Your task to perform on an android device: Go to accessibility settings Image 0: 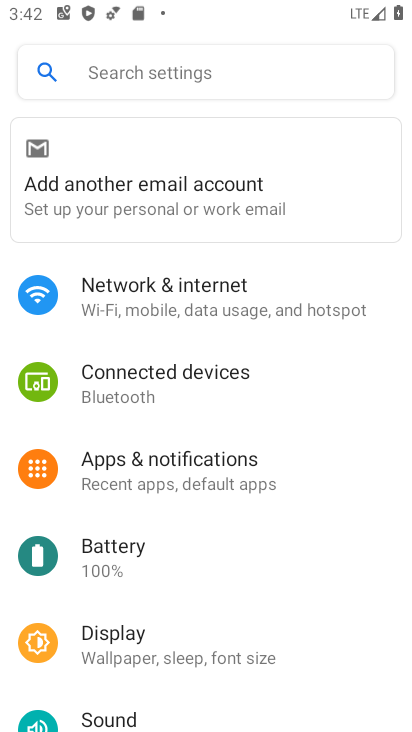
Step 0: drag from (188, 551) to (211, 148)
Your task to perform on an android device: Go to accessibility settings Image 1: 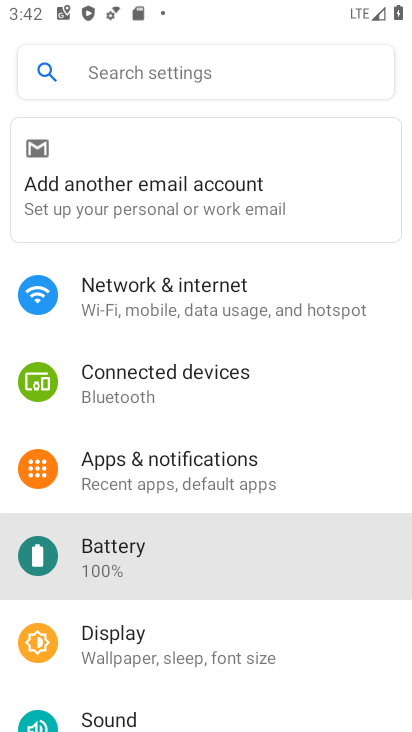
Step 1: drag from (176, 548) to (164, 207)
Your task to perform on an android device: Go to accessibility settings Image 2: 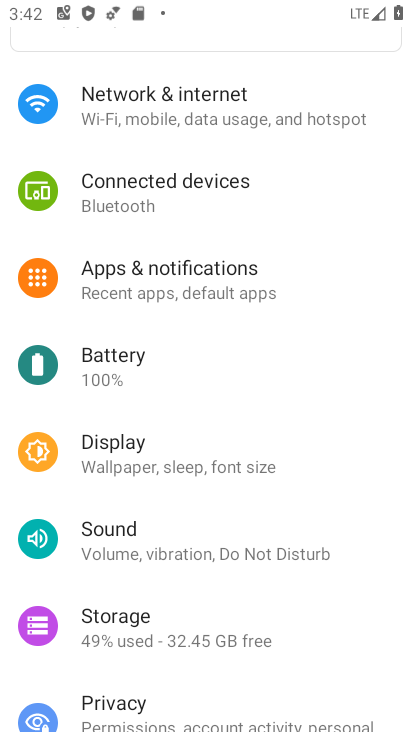
Step 2: drag from (161, 523) to (103, 177)
Your task to perform on an android device: Go to accessibility settings Image 3: 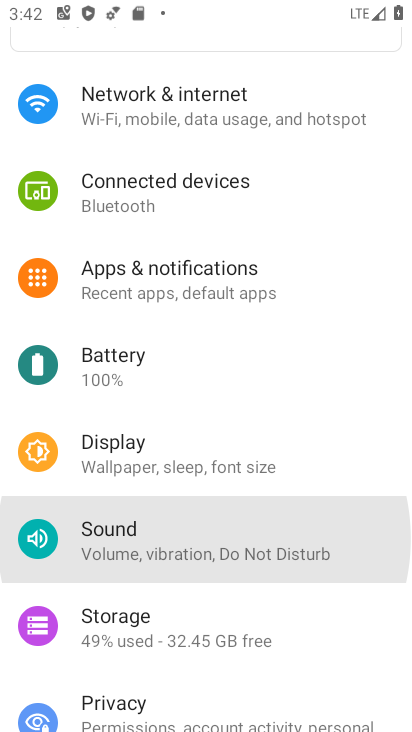
Step 3: click (144, 111)
Your task to perform on an android device: Go to accessibility settings Image 4: 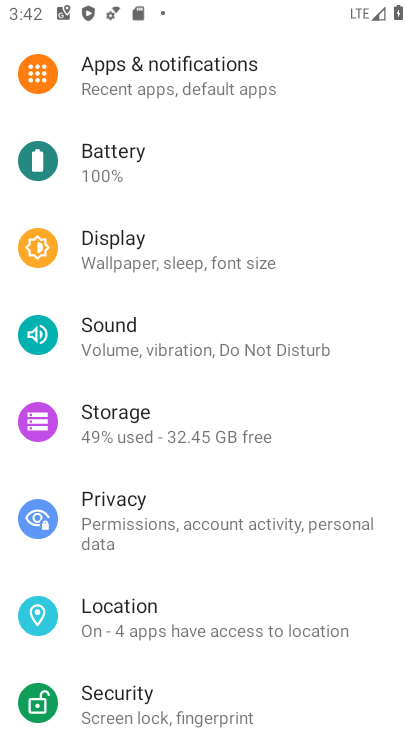
Step 4: drag from (176, 491) to (157, 165)
Your task to perform on an android device: Go to accessibility settings Image 5: 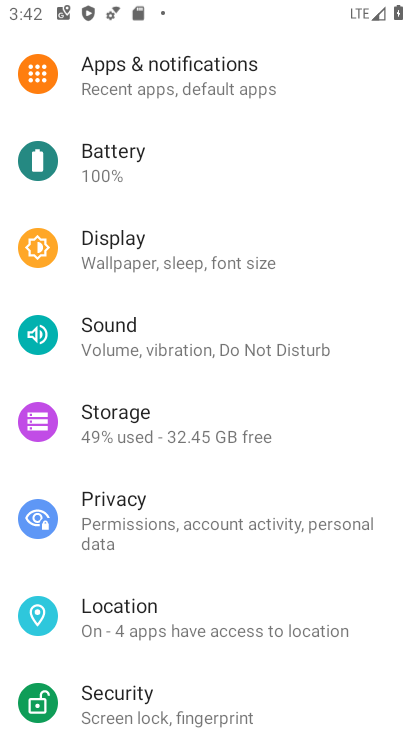
Step 5: drag from (184, 556) to (180, 237)
Your task to perform on an android device: Go to accessibility settings Image 6: 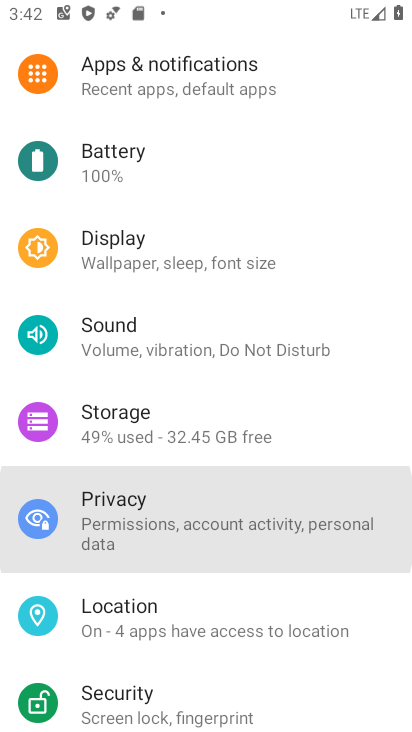
Step 6: drag from (196, 400) to (152, 159)
Your task to perform on an android device: Go to accessibility settings Image 7: 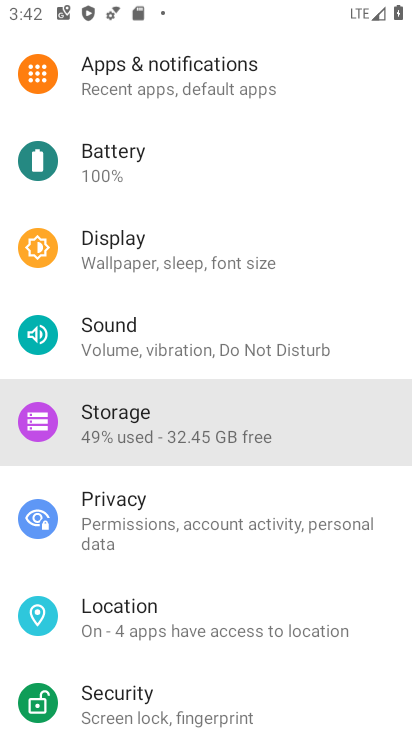
Step 7: drag from (161, 493) to (141, 104)
Your task to perform on an android device: Go to accessibility settings Image 8: 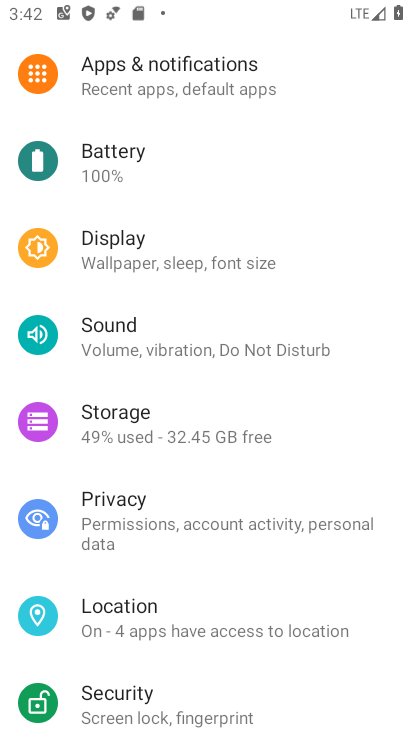
Step 8: drag from (160, 553) to (91, 224)
Your task to perform on an android device: Go to accessibility settings Image 9: 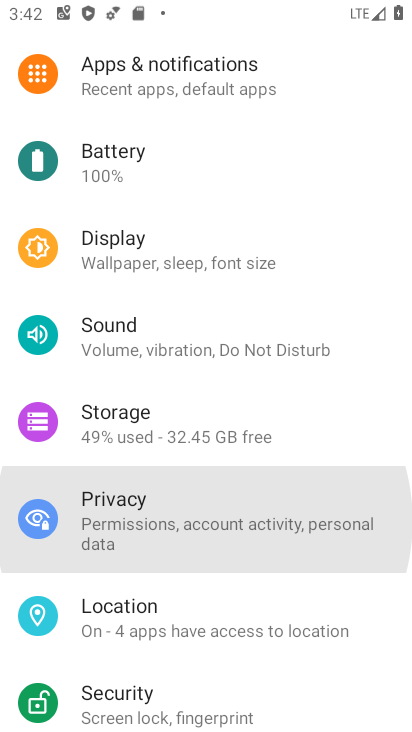
Step 9: drag from (199, 567) to (111, 85)
Your task to perform on an android device: Go to accessibility settings Image 10: 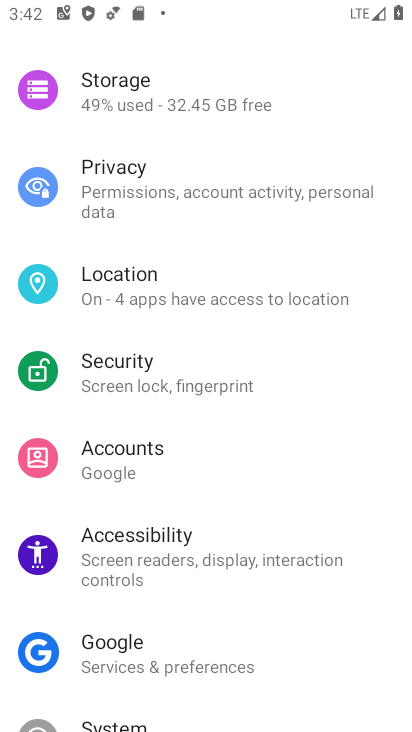
Step 10: drag from (193, 534) to (179, 35)
Your task to perform on an android device: Go to accessibility settings Image 11: 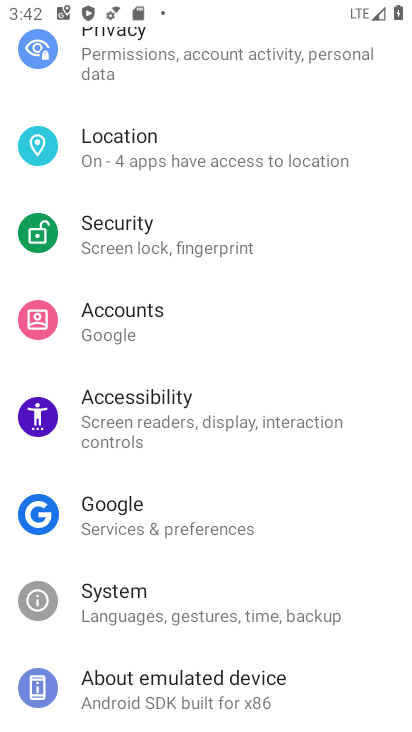
Step 11: click (133, 429)
Your task to perform on an android device: Go to accessibility settings Image 12: 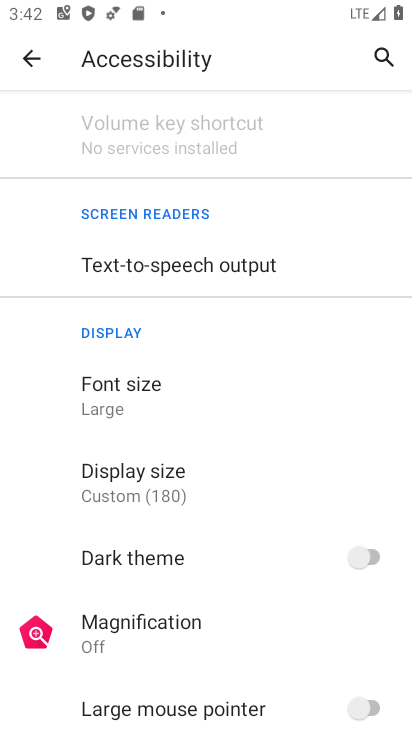
Step 12: task complete